Your task to perform on an android device: turn off data saver in the chrome app Image 0: 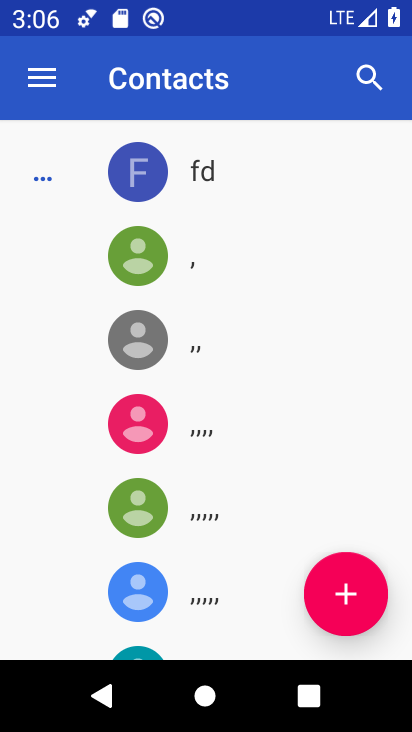
Step 0: click (247, 493)
Your task to perform on an android device: turn off data saver in the chrome app Image 1: 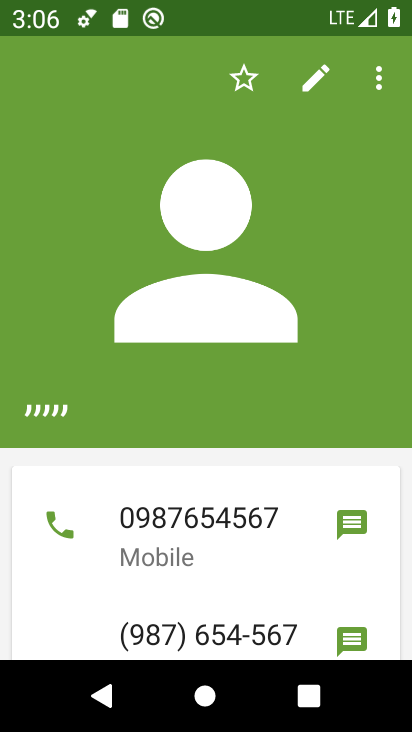
Step 1: press home button
Your task to perform on an android device: turn off data saver in the chrome app Image 2: 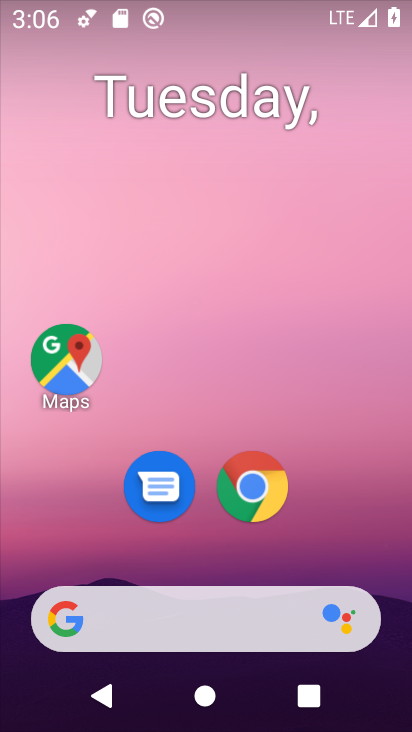
Step 2: click (256, 483)
Your task to perform on an android device: turn off data saver in the chrome app Image 3: 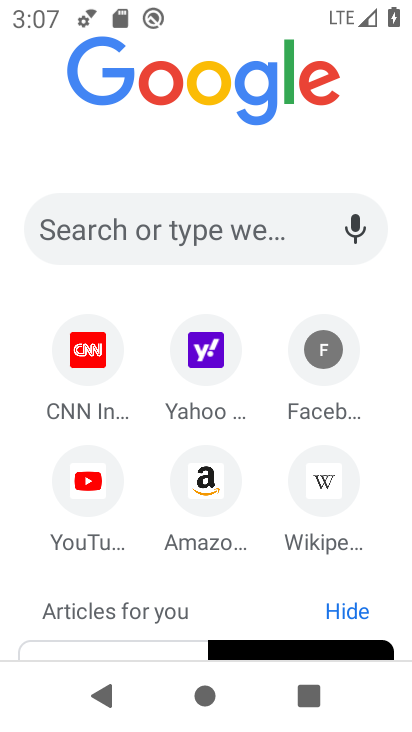
Step 3: drag from (196, 152) to (225, 583)
Your task to perform on an android device: turn off data saver in the chrome app Image 4: 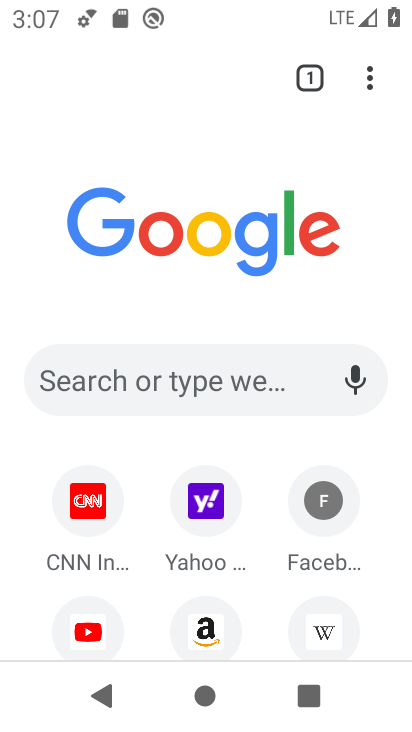
Step 4: click (372, 63)
Your task to perform on an android device: turn off data saver in the chrome app Image 5: 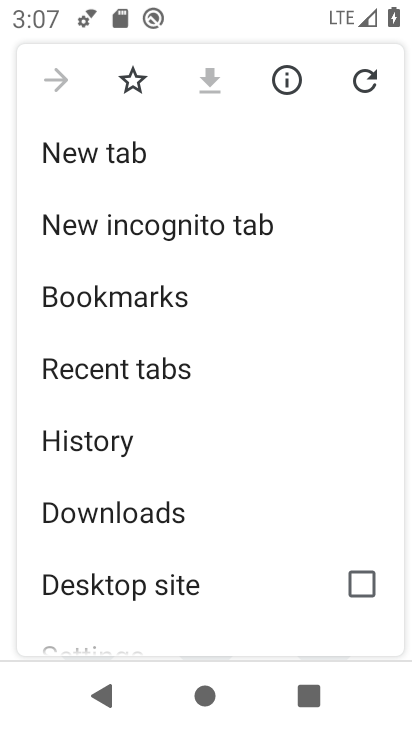
Step 5: drag from (223, 557) to (233, 145)
Your task to perform on an android device: turn off data saver in the chrome app Image 6: 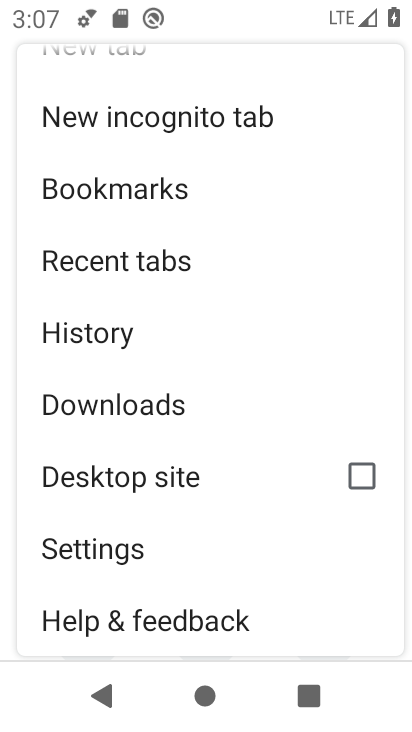
Step 6: click (152, 543)
Your task to perform on an android device: turn off data saver in the chrome app Image 7: 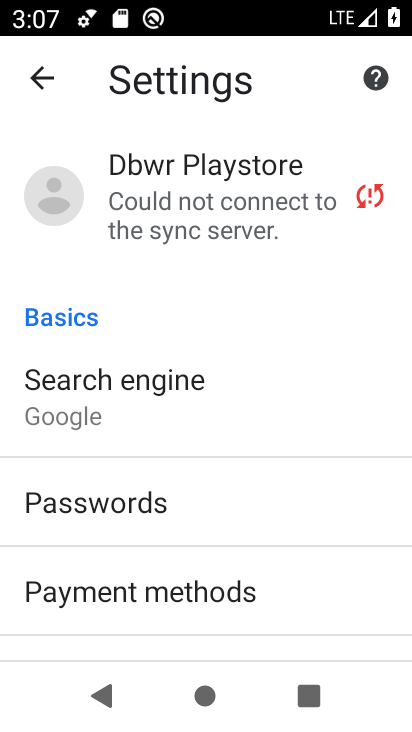
Step 7: drag from (188, 594) to (185, 342)
Your task to perform on an android device: turn off data saver in the chrome app Image 8: 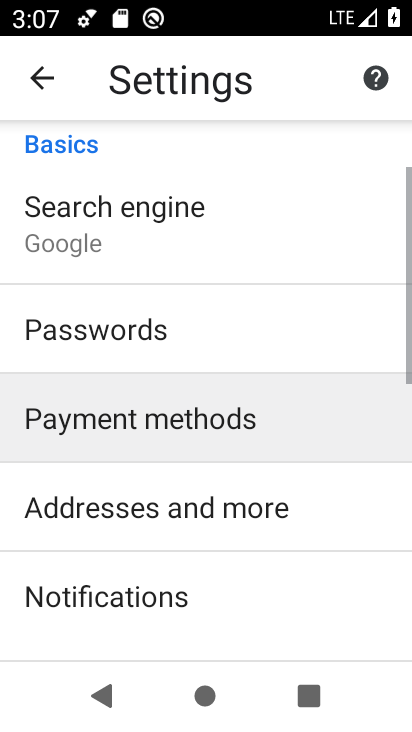
Step 8: click (188, 235)
Your task to perform on an android device: turn off data saver in the chrome app Image 9: 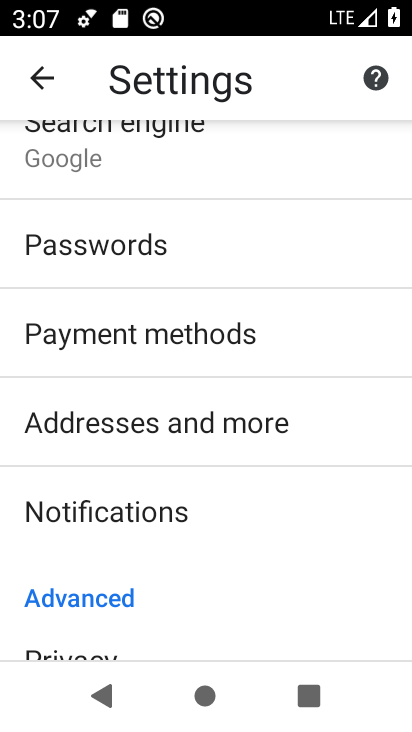
Step 9: drag from (169, 600) to (198, 213)
Your task to perform on an android device: turn off data saver in the chrome app Image 10: 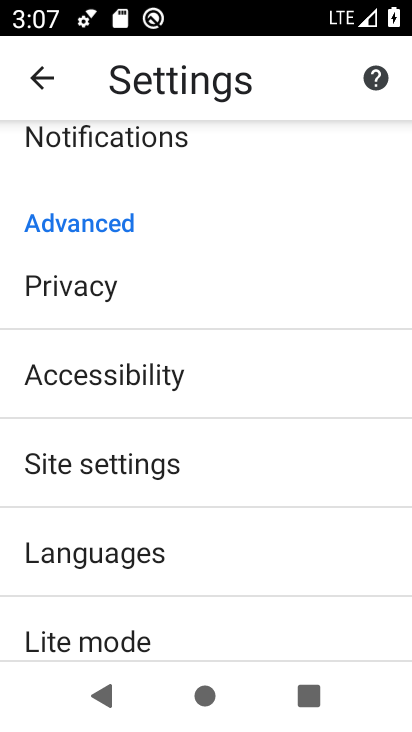
Step 10: click (170, 627)
Your task to perform on an android device: turn off data saver in the chrome app Image 11: 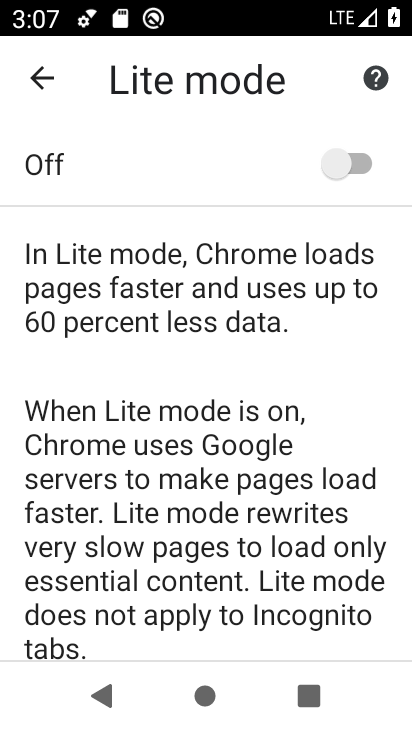
Step 11: task complete